Your task to perform on an android device: Go to Google maps Image 0: 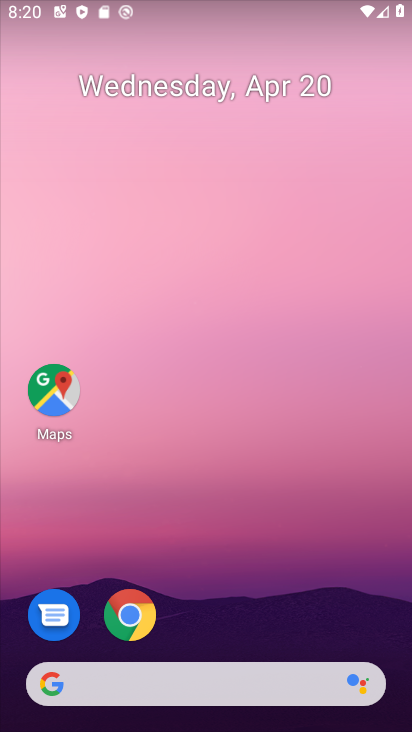
Step 0: click (54, 392)
Your task to perform on an android device: Go to Google maps Image 1: 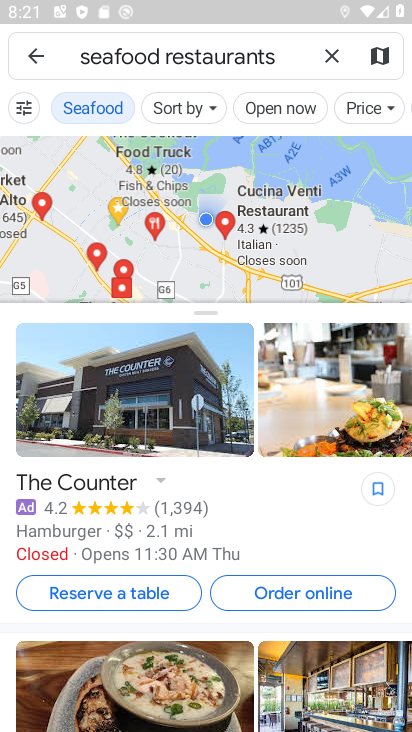
Step 1: task complete